Your task to perform on an android device: Clear all items from cart on target. Image 0: 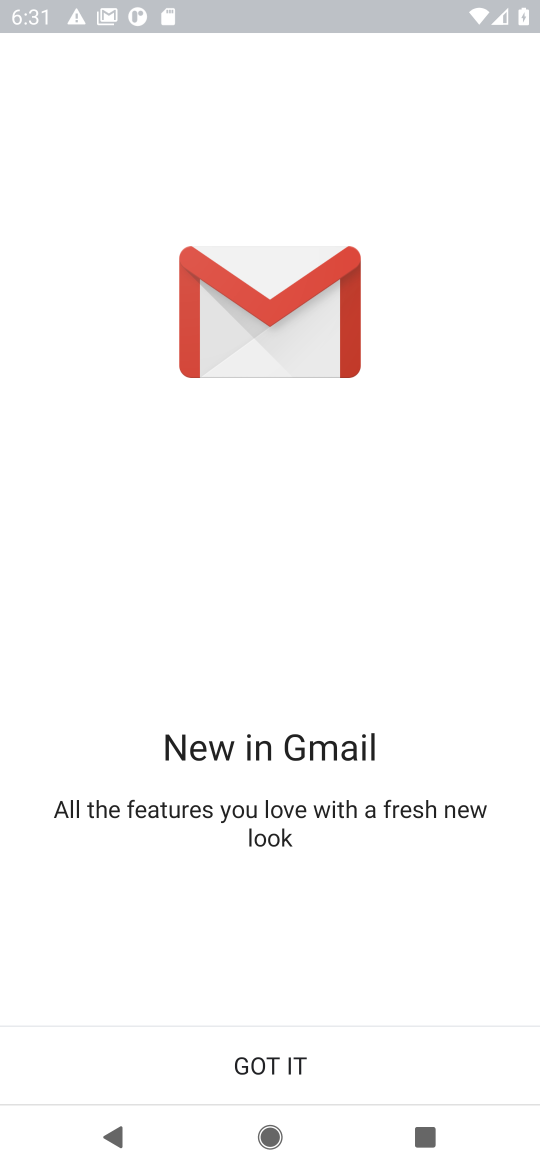
Step 0: press home button
Your task to perform on an android device: Clear all items from cart on target. Image 1: 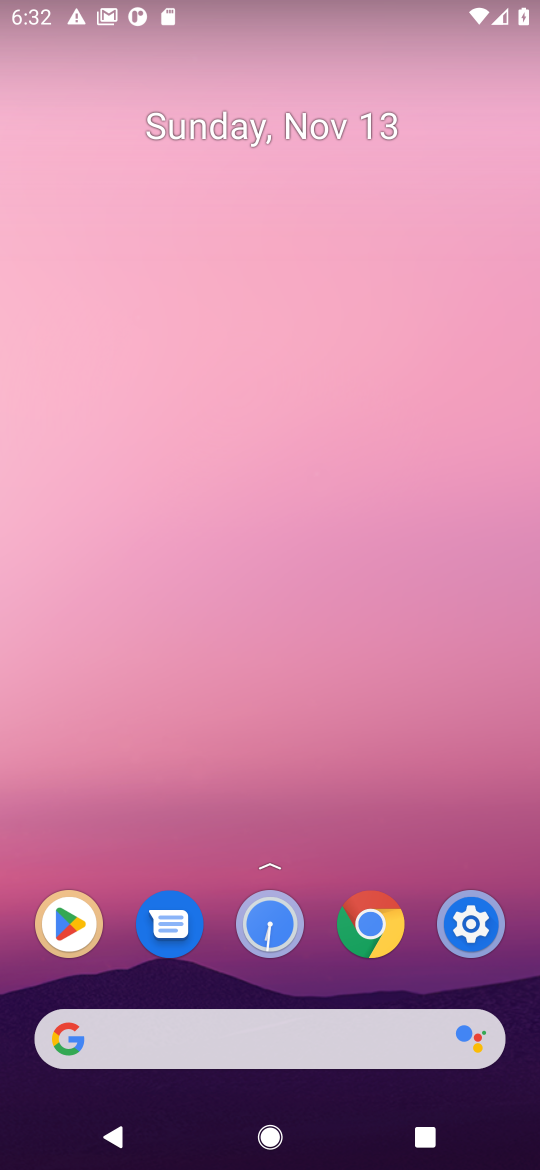
Step 1: click (372, 922)
Your task to perform on an android device: Clear all items from cart on target. Image 2: 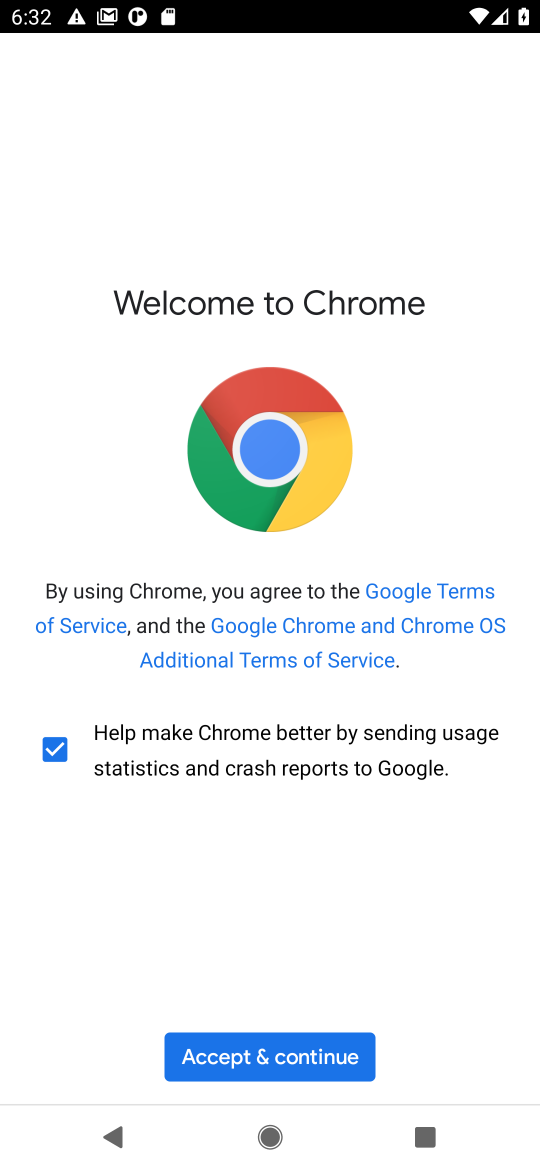
Step 2: click (279, 1048)
Your task to perform on an android device: Clear all items from cart on target. Image 3: 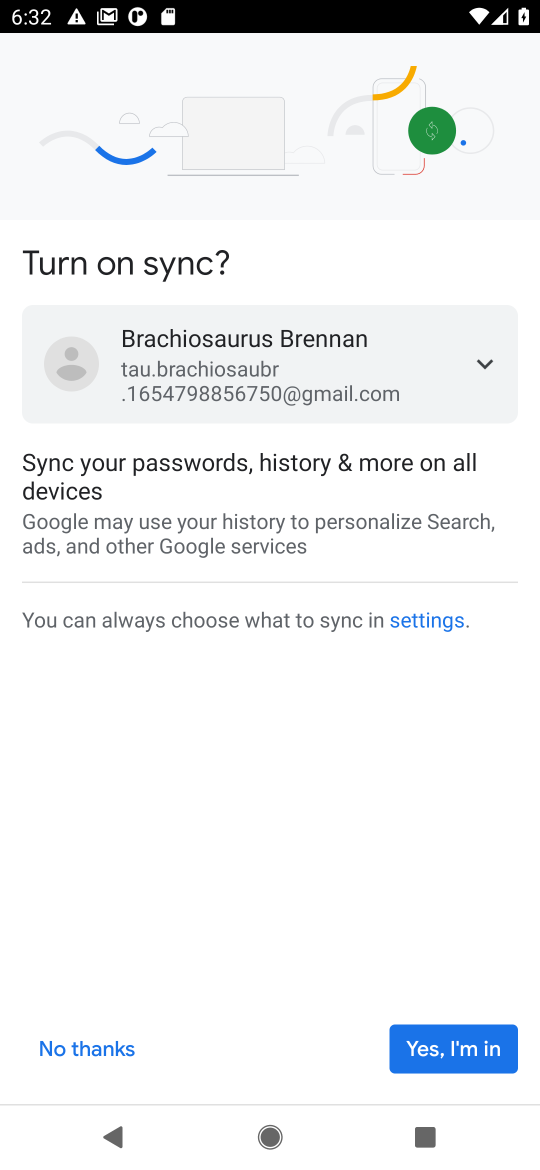
Step 3: click (439, 1041)
Your task to perform on an android device: Clear all items from cart on target. Image 4: 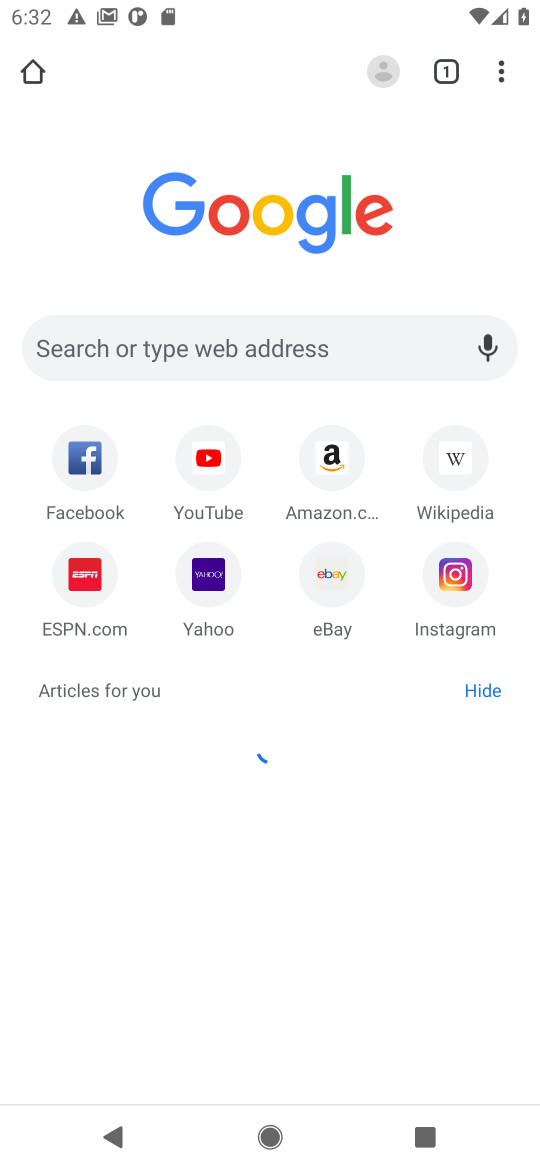
Step 4: click (258, 348)
Your task to perform on an android device: Clear all items from cart on target. Image 5: 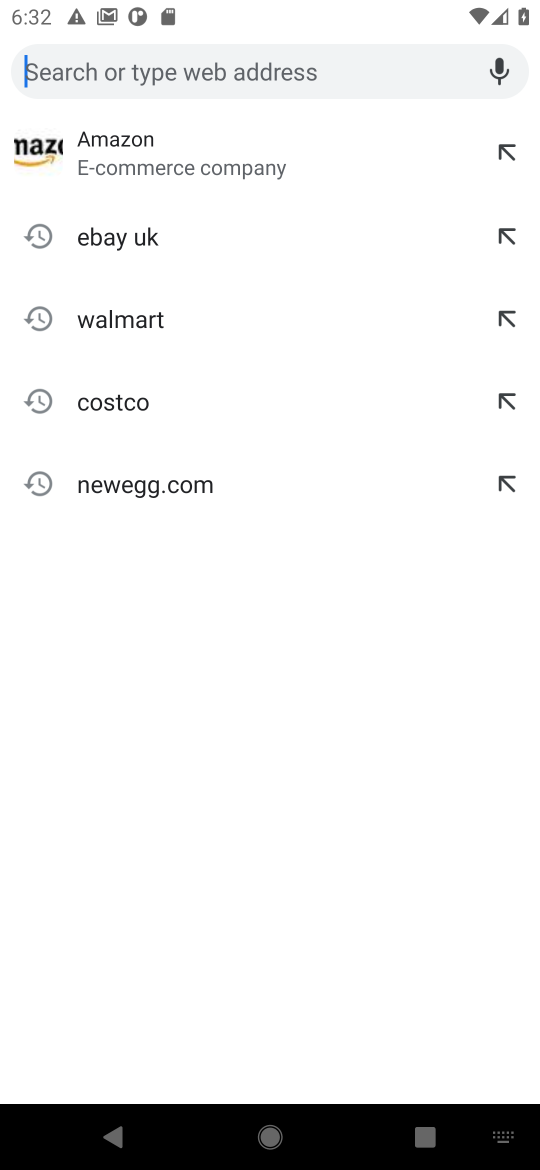
Step 5: type "target.com"
Your task to perform on an android device: Clear all items from cart on target. Image 6: 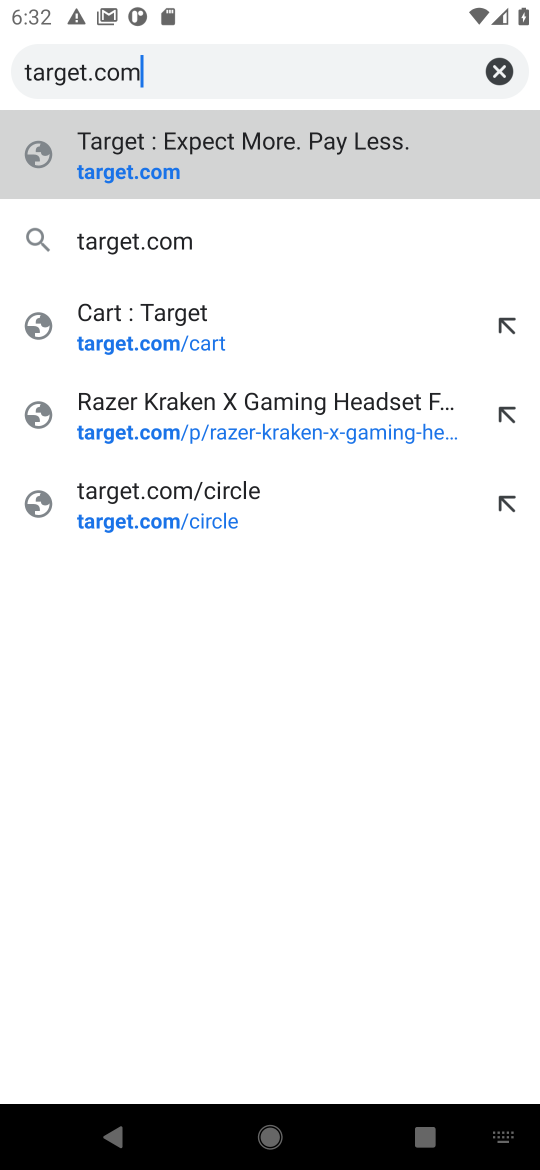
Step 6: click (153, 181)
Your task to perform on an android device: Clear all items from cart on target. Image 7: 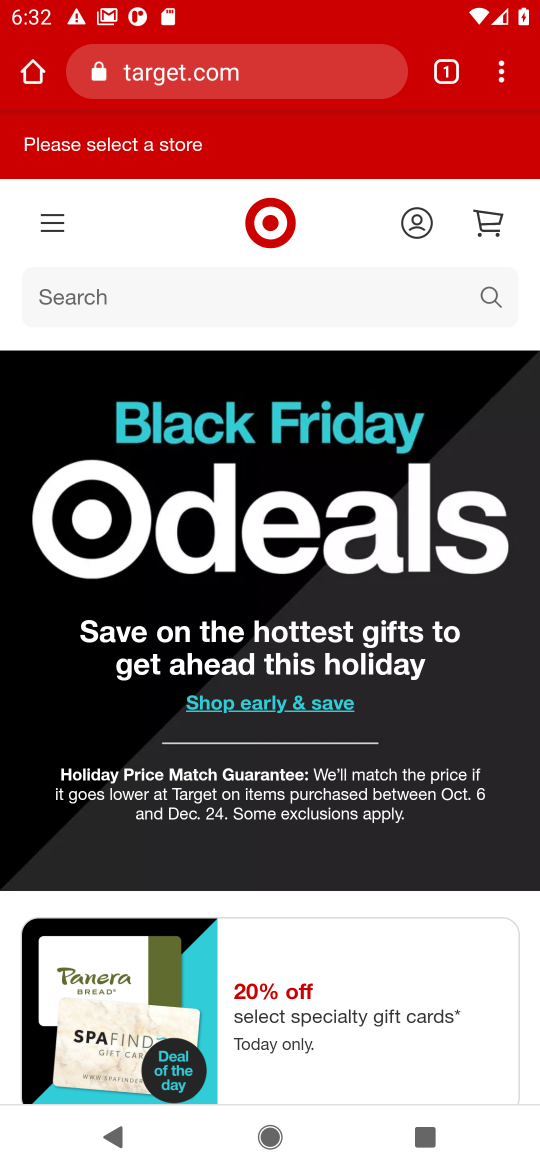
Step 7: click (493, 226)
Your task to perform on an android device: Clear all items from cart on target. Image 8: 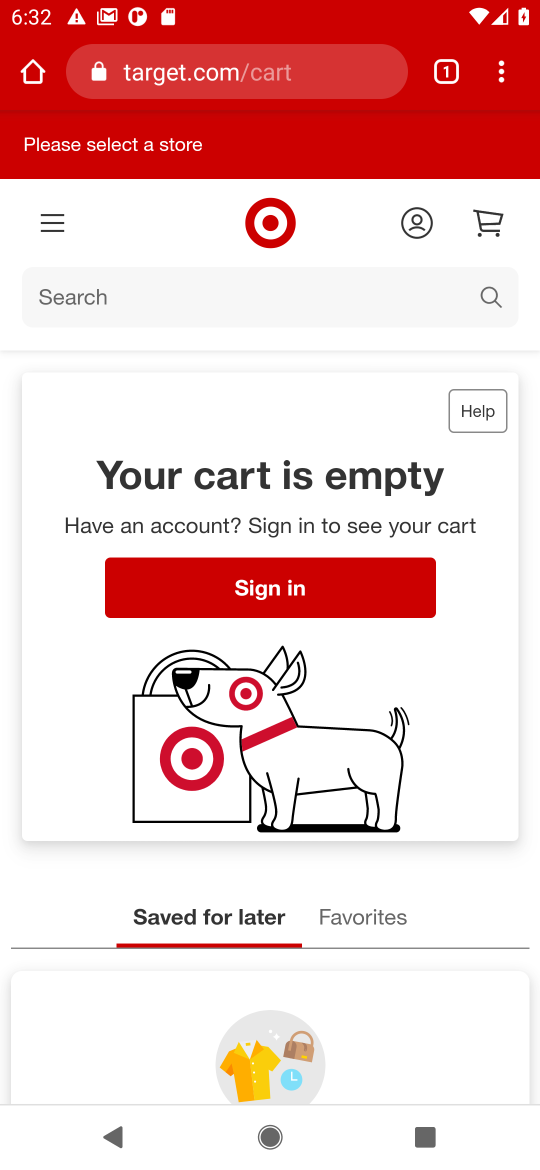
Step 8: task complete